Your task to perform on an android device: Set the phone to "Do not disturb". Image 0: 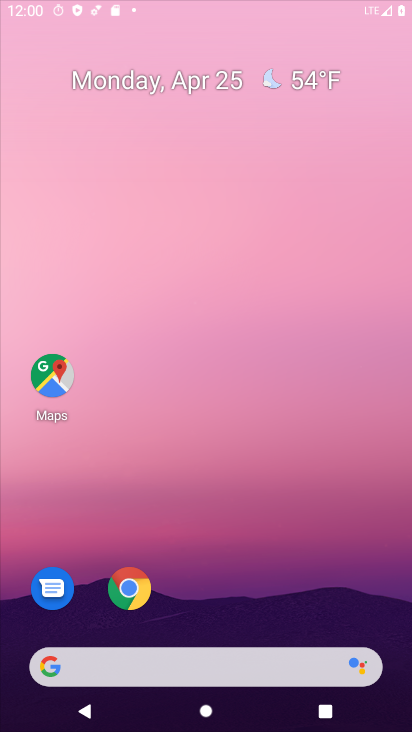
Step 0: drag from (214, 638) to (243, 3)
Your task to perform on an android device: Set the phone to "Do not disturb". Image 1: 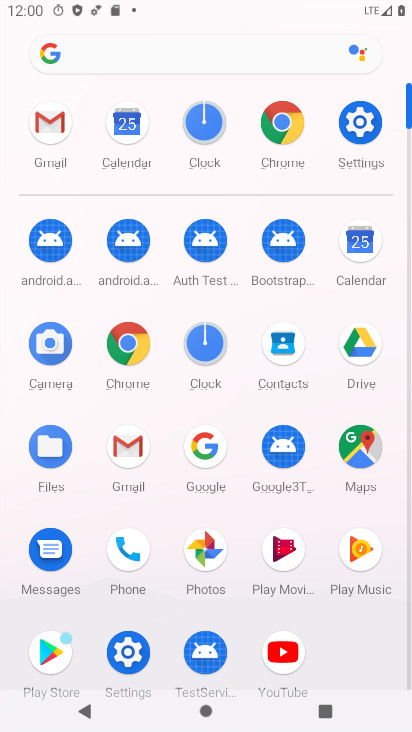
Step 1: drag from (128, 6) to (126, 474)
Your task to perform on an android device: Set the phone to "Do not disturb". Image 2: 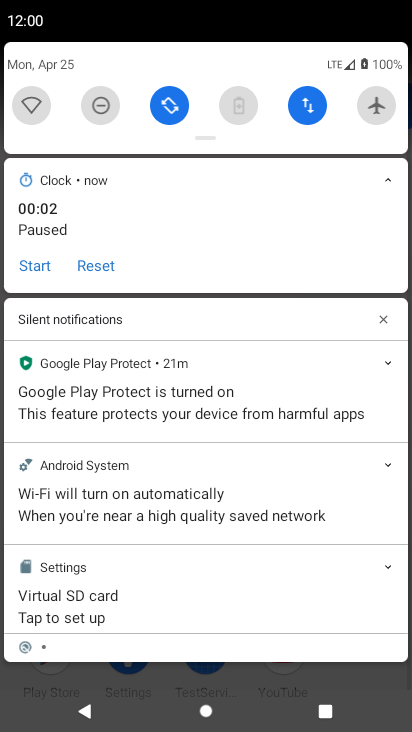
Step 2: click (87, 103)
Your task to perform on an android device: Set the phone to "Do not disturb". Image 3: 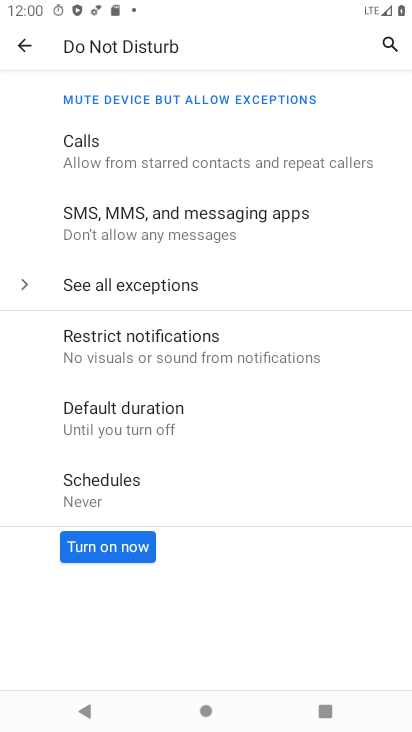
Step 3: click (109, 537)
Your task to perform on an android device: Set the phone to "Do not disturb". Image 4: 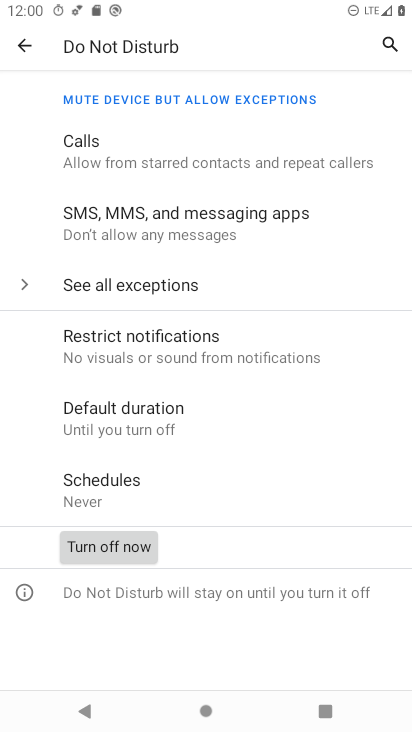
Step 4: task complete